Your task to perform on an android device: Open network settings Image 0: 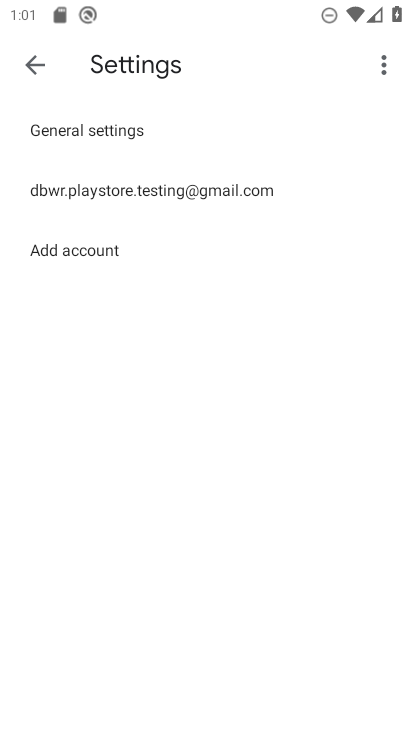
Step 0: press home button
Your task to perform on an android device: Open network settings Image 1: 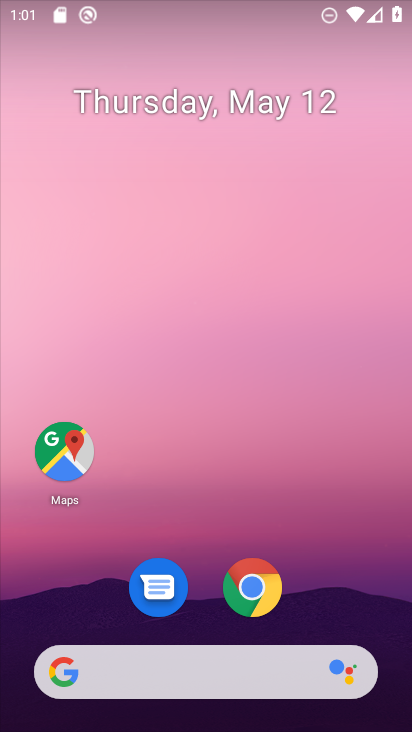
Step 1: drag from (326, 575) to (234, 69)
Your task to perform on an android device: Open network settings Image 2: 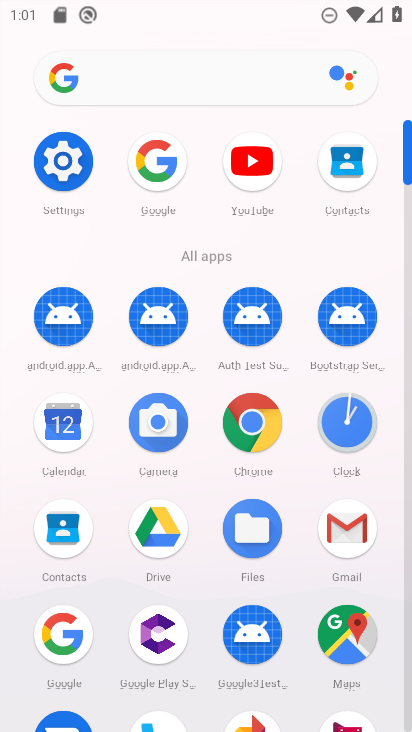
Step 2: click (62, 159)
Your task to perform on an android device: Open network settings Image 3: 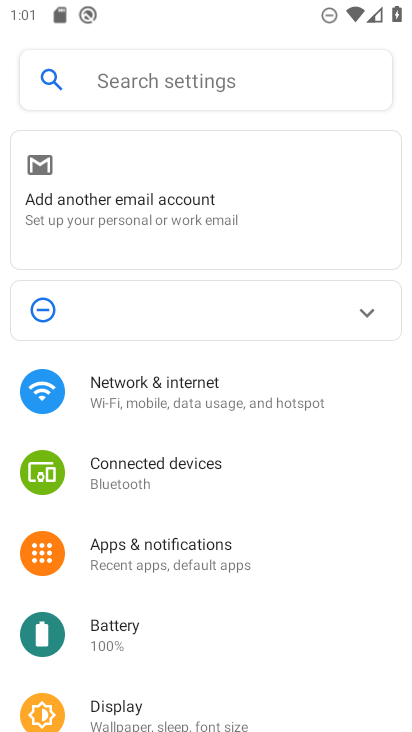
Step 3: click (173, 392)
Your task to perform on an android device: Open network settings Image 4: 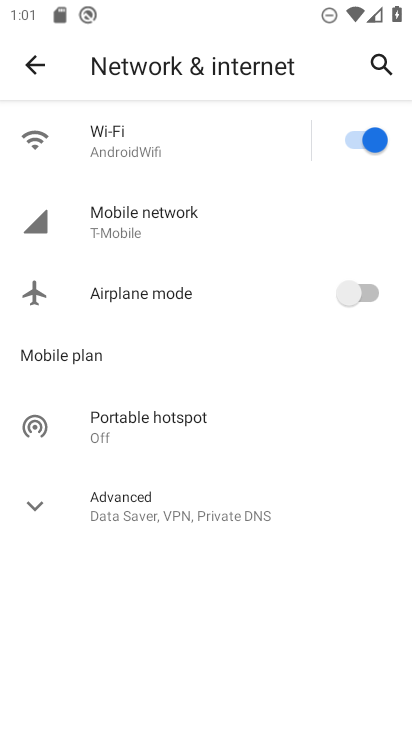
Step 4: click (138, 218)
Your task to perform on an android device: Open network settings Image 5: 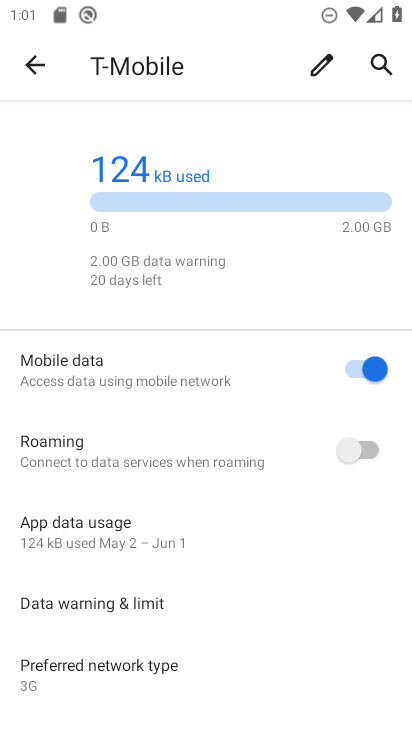
Step 5: task complete